Your task to perform on an android device: Open Amazon Image 0: 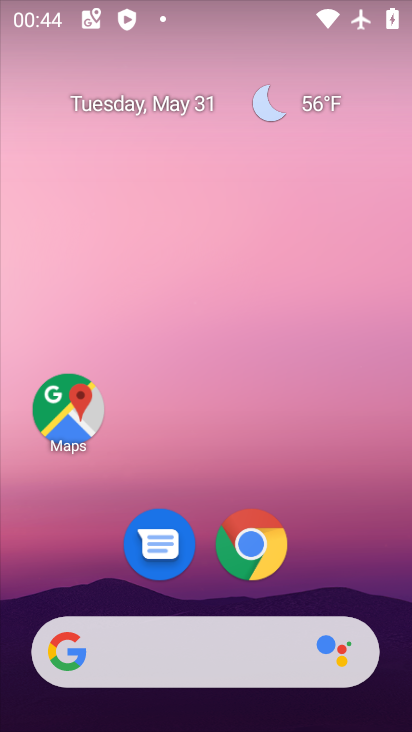
Step 0: click (247, 536)
Your task to perform on an android device: Open Amazon Image 1: 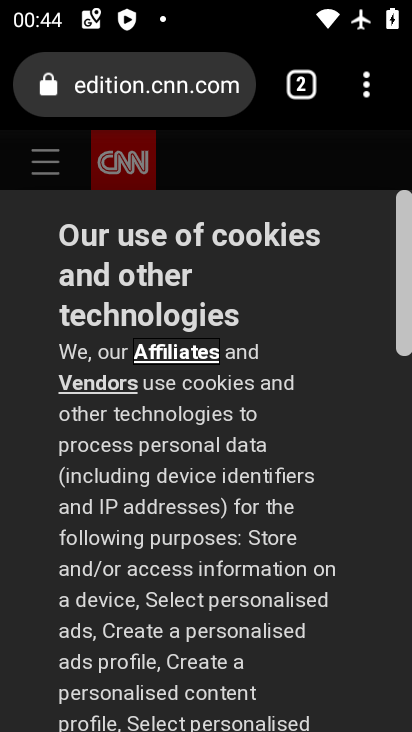
Step 1: click (370, 77)
Your task to perform on an android device: Open Amazon Image 2: 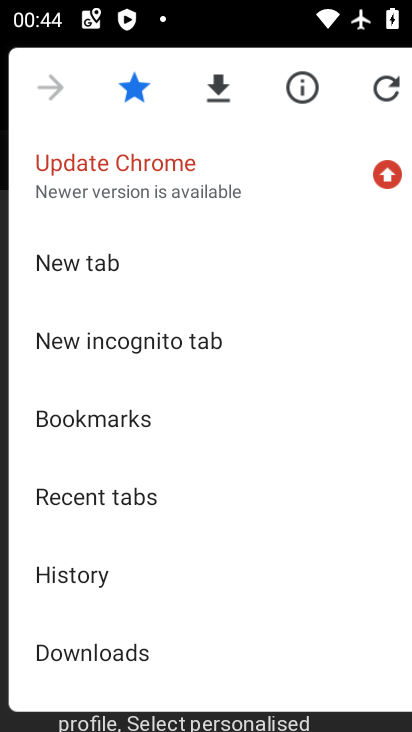
Step 2: click (91, 257)
Your task to perform on an android device: Open Amazon Image 3: 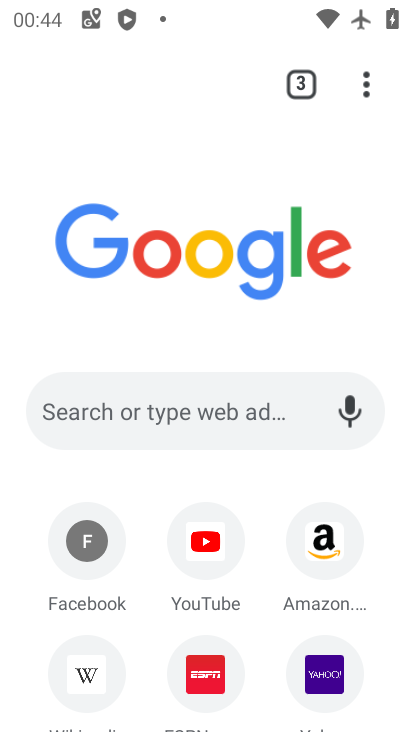
Step 3: click (322, 557)
Your task to perform on an android device: Open Amazon Image 4: 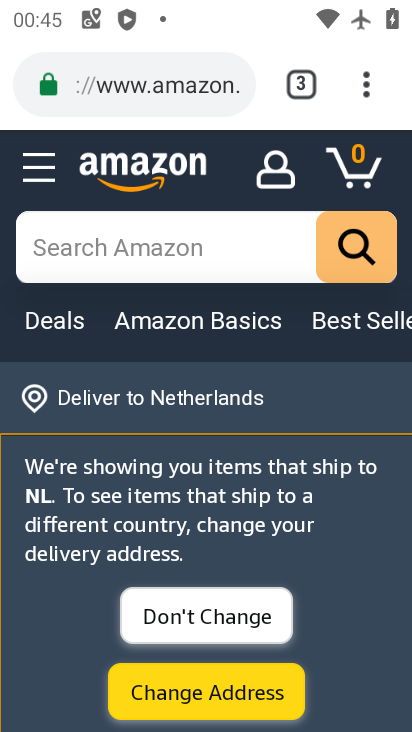
Step 4: task complete